Your task to perform on an android device: Go to location settings Image 0: 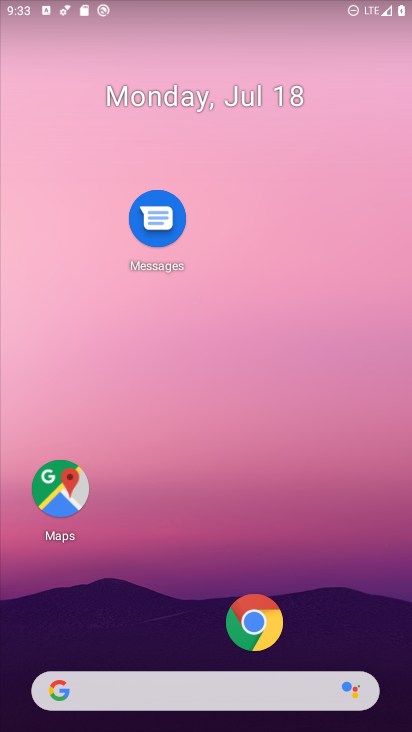
Step 0: drag from (178, 657) to (247, 121)
Your task to perform on an android device: Go to location settings Image 1: 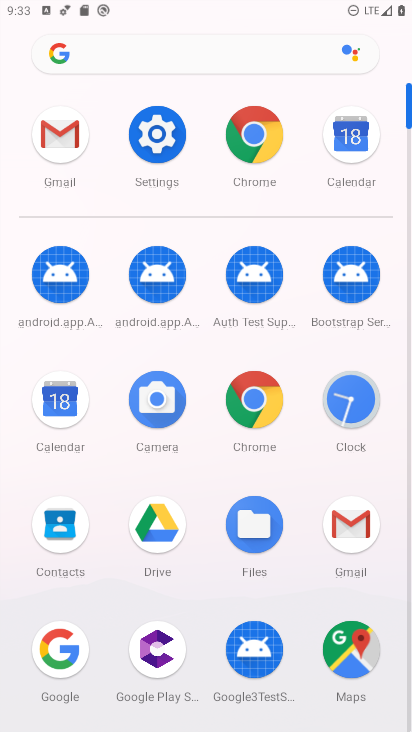
Step 1: click (165, 149)
Your task to perform on an android device: Go to location settings Image 2: 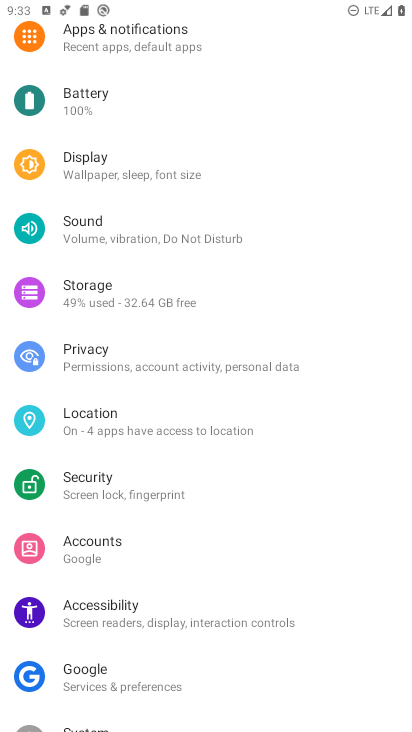
Step 2: click (168, 148)
Your task to perform on an android device: Go to location settings Image 3: 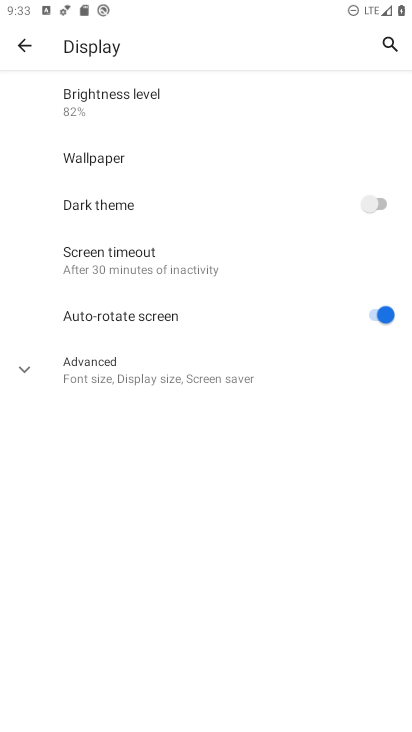
Step 3: click (25, 44)
Your task to perform on an android device: Go to location settings Image 4: 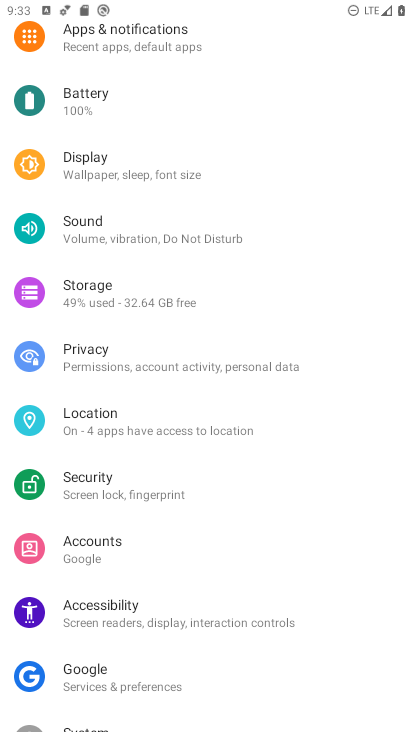
Step 4: click (176, 329)
Your task to perform on an android device: Go to location settings Image 5: 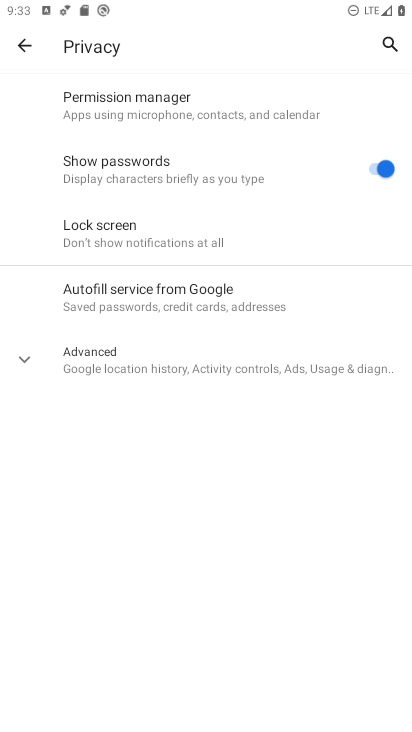
Step 5: click (161, 367)
Your task to perform on an android device: Go to location settings Image 6: 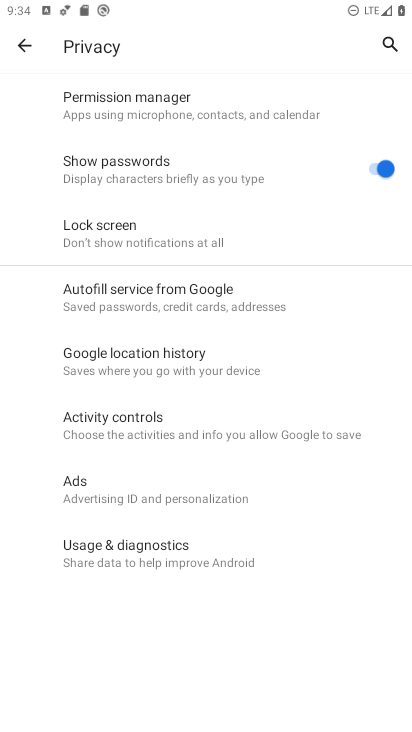
Step 6: task complete